Your task to perform on an android device: Find coffee shops on Maps Image 0: 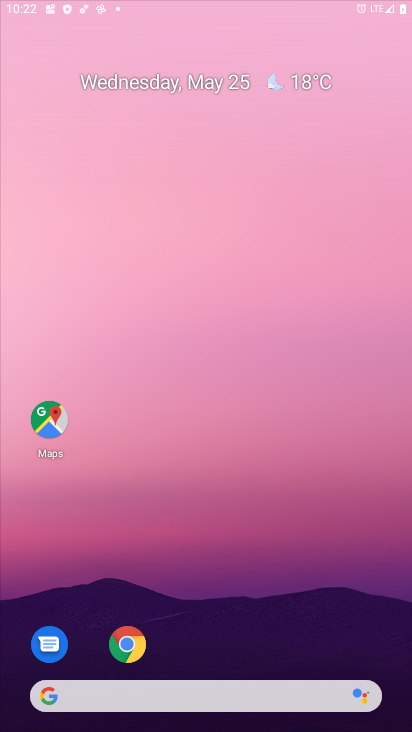
Step 0: press home button
Your task to perform on an android device: Find coffee shops on Maps Image 1: 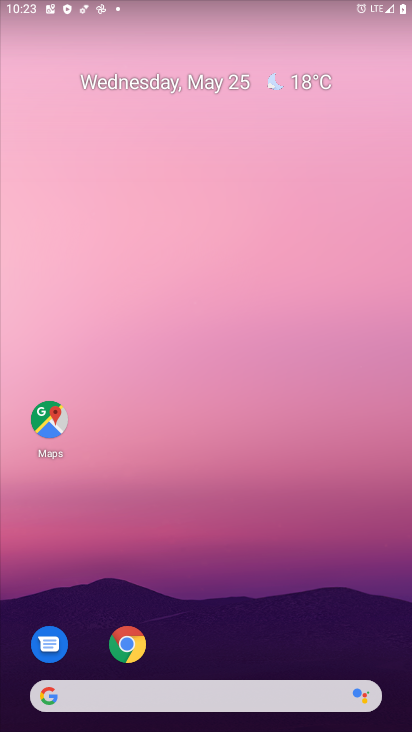
Step 1: click (49, 417)
Your task to perform on an android device: Find coffee shops on Maps Image 2: 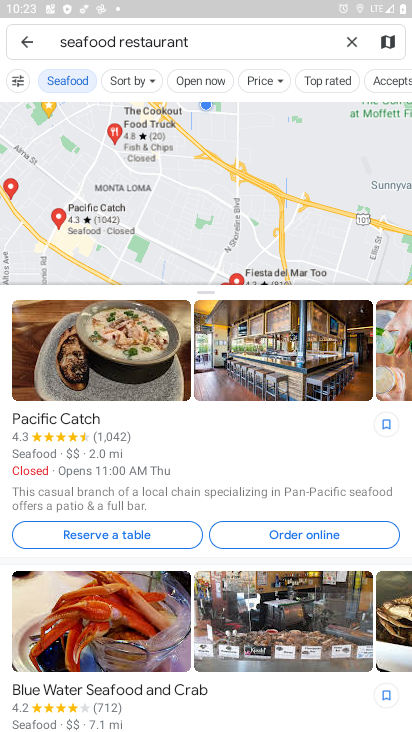
Step 2: click (354, 35)
Your task to perform on an android device: Find coffee shops on Maps Image 3: 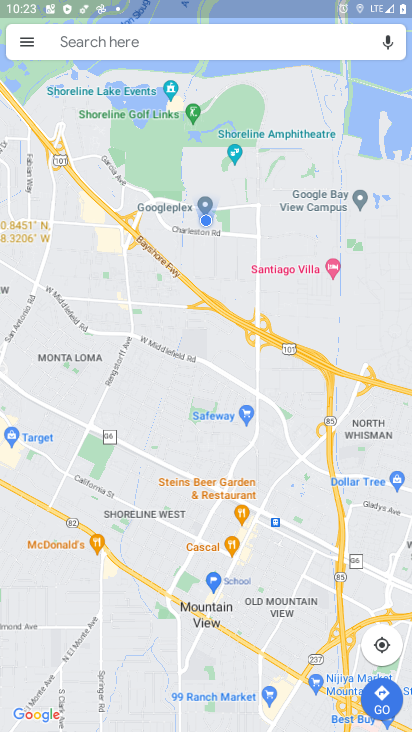
Step 3: click (105, 33)
Your task to perform on an android device: Find coffee shops on Maps Image 4: 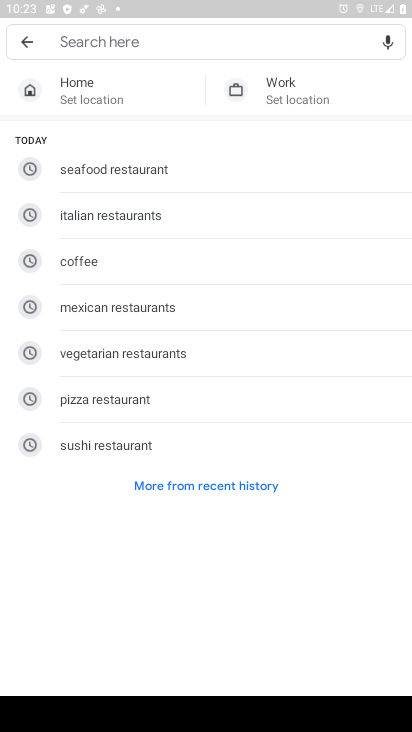
Step 4: type "coffee"
Your task to perform on an android device: Find coffee shops on Maps Image 5: 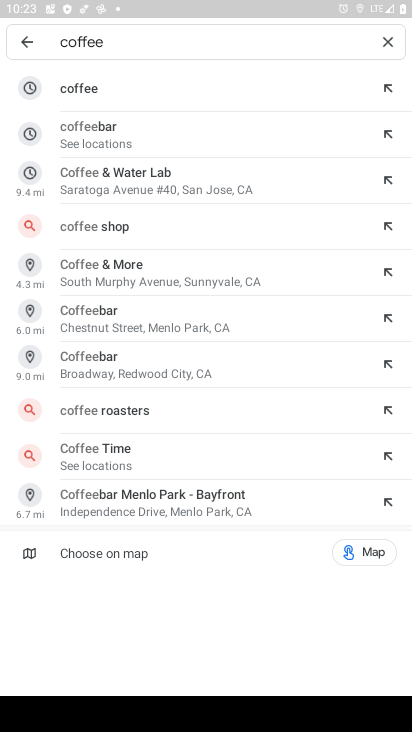
Step 5: click (110, 92)
Your task to perform on an android device: Find coffee shops on Maps Image 6: 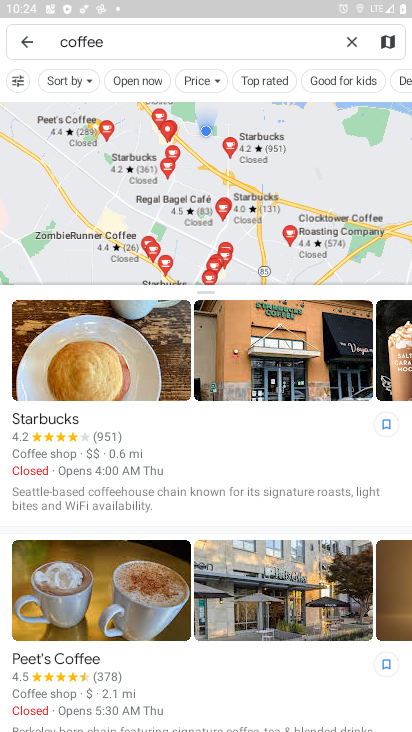
Step 6: task complete